Your task to perform on an android device: change keyboard looks Image 0: 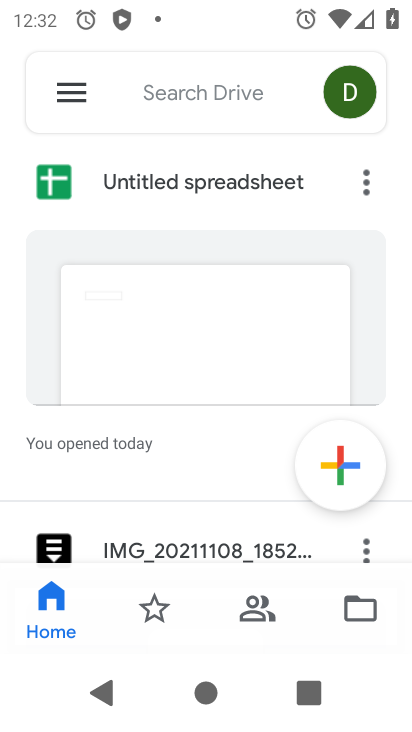
Step 0: press home button
Your task to perform on an android device: change keyboard looks Image 1: 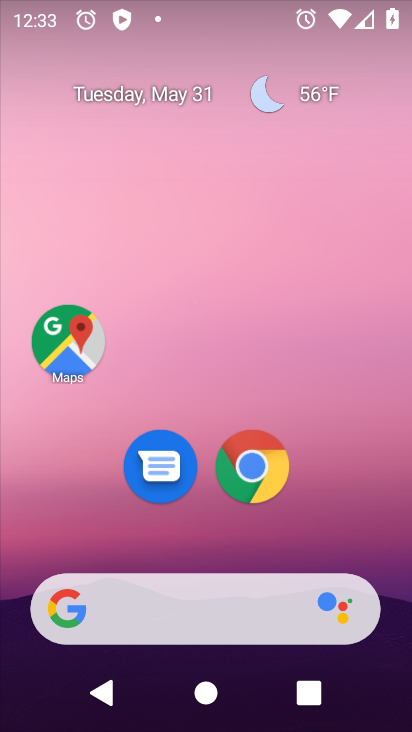
Step 1: click (168, 408)
Your task to perform on an android device: change keyboard looks Image 2: 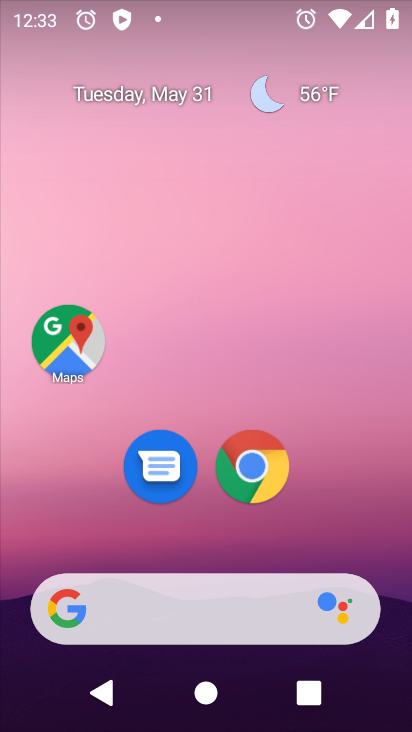
Step 2: drag from (186, 591) to (176, 138)
Your task to perform on an android device: change keyboard looks Image 3: 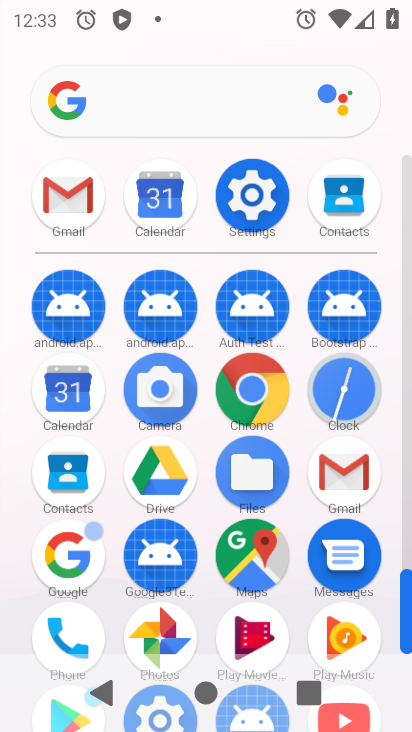
Step 3: click (241, 197)
Your task to perform on an android device: change keyboard looks Image 4: 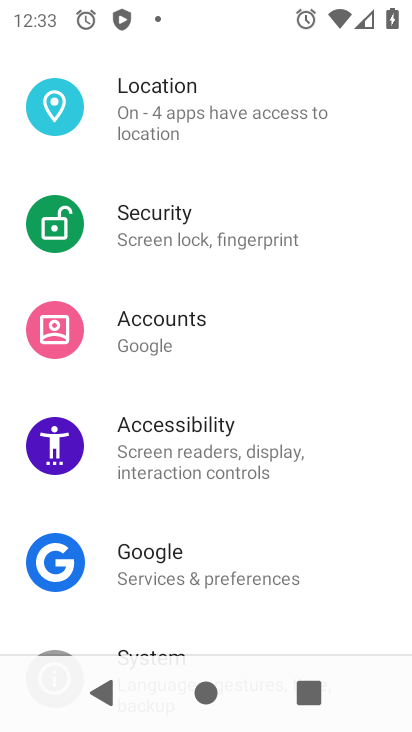
Step 4: drag from (185, 539) to (180, 12)
Your task to perform on an android device: change keyboard looks Image 5: 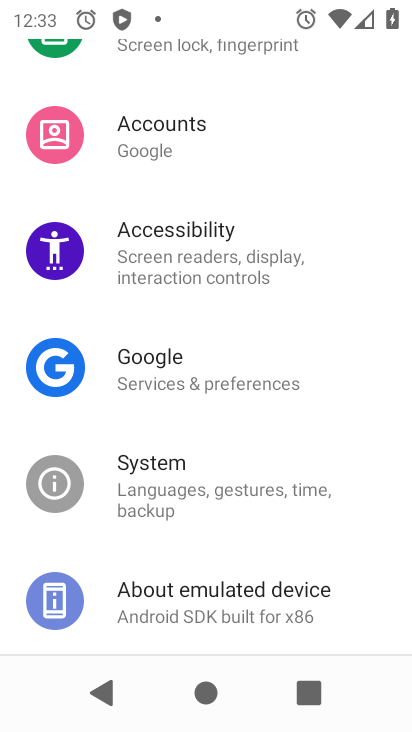
Step 5: click (170, 485)
Your task to perform on an android device: change keyboard looks Image 6: 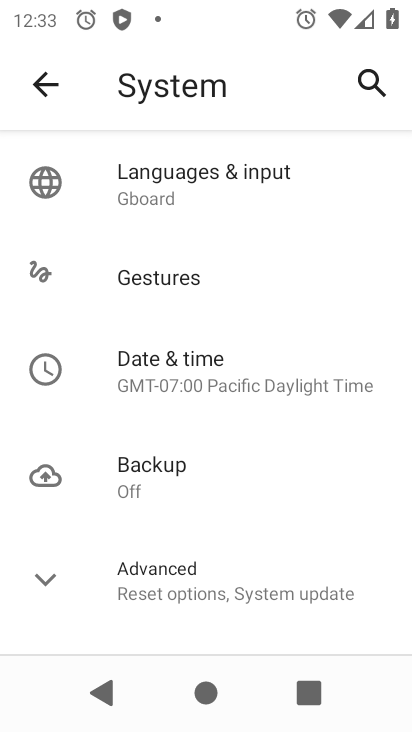
Step 6: click (157, 191)
Your task to perform on an android device: change keyboard looks Image 7: 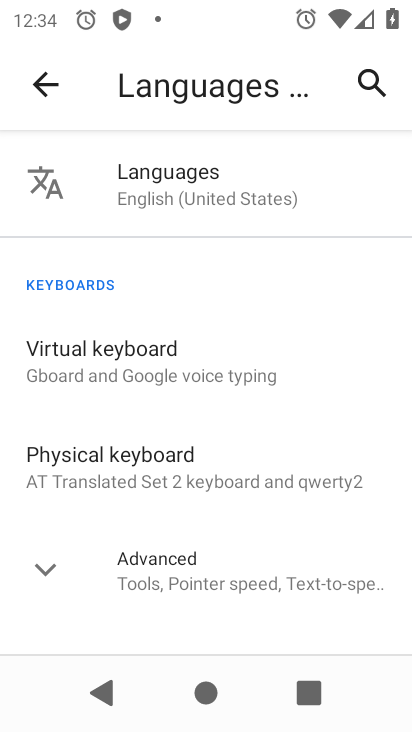
Step 7: click (110, 342)
Your task to perform on an android device: change keyboard looks Image 8: 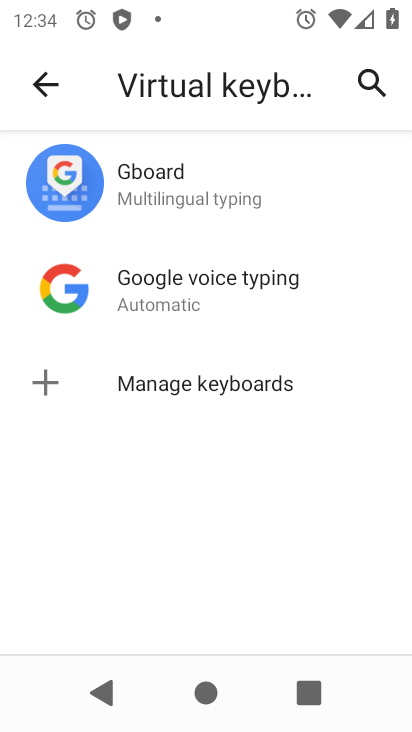
Step 8: click (154, 191)
Your task to perform on an android device: change keyboard looks Image 9: 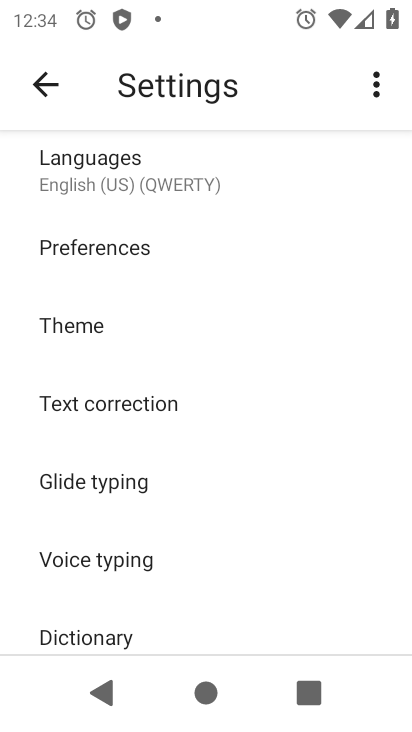
Step 9: click (112, 340)
Your task to perform on an android device: change keyboard looks Image 10: 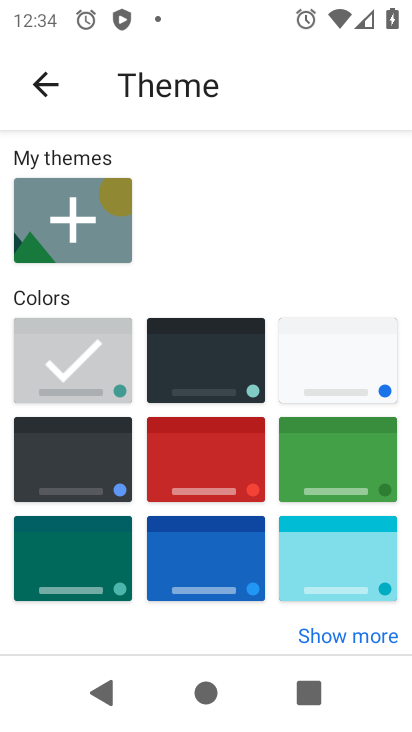
Step 10: click (199, 442)
Your task to perform on an android device: change keyboard looks Image 11: 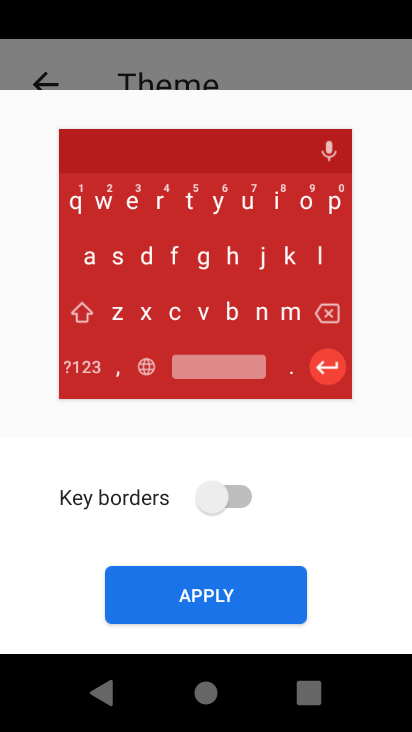
Step 11: click (218, 594)
Your task to perform on an android device: change keyboard looks Image 12: 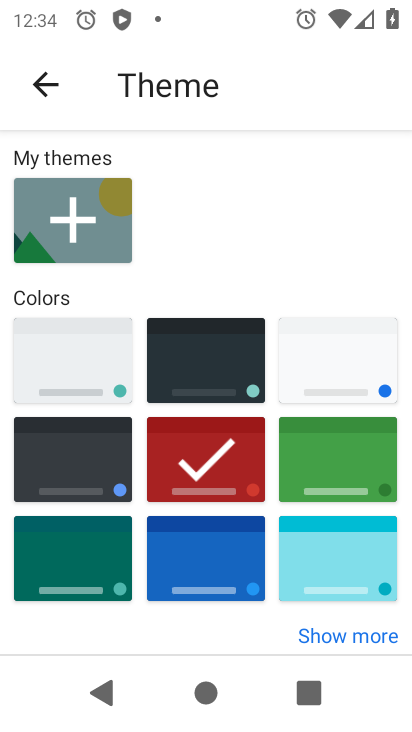
Step 12: task complete